Your task to perform on an android device: Open eBay Image 0: 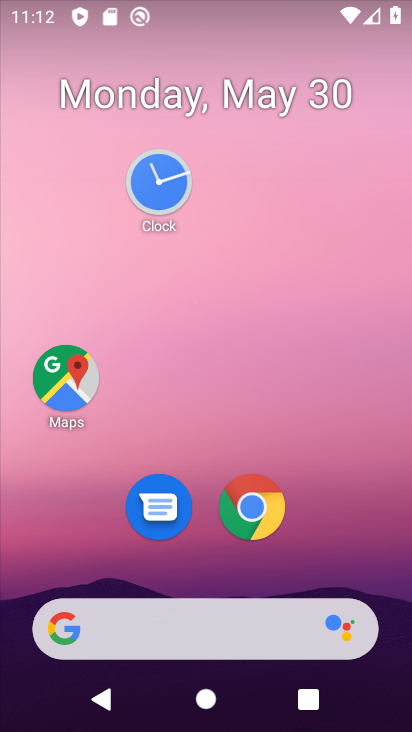
Step 0: click (260, 517)
Your task to perform on an android device: Open eBay Image 1: 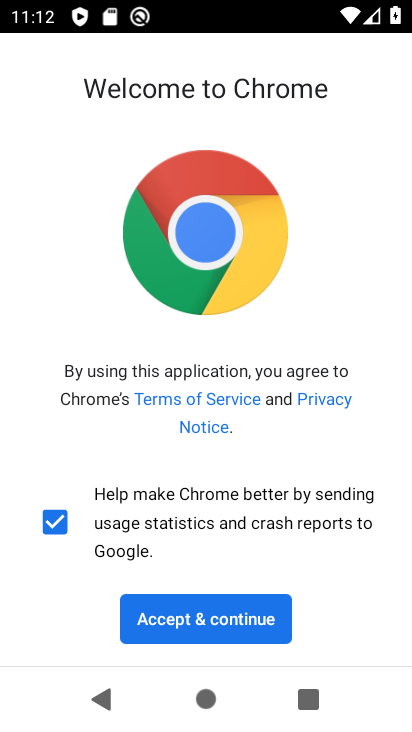
Step 1: click (279, 625)
Your task to perform on an android device: Open eBay Image 2: 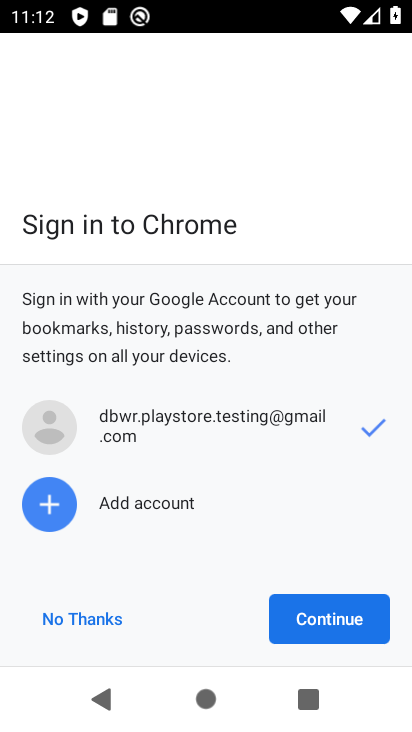
Step 2: click (301, 627)
Your task to perform on an android device: Open eBay Image 3: 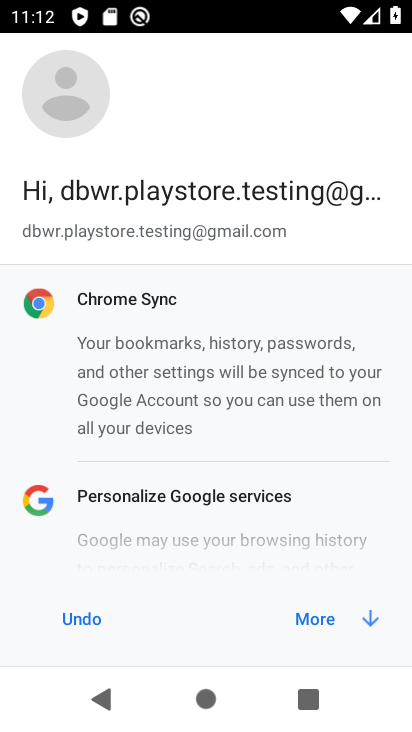
Step 3: click (306, 622)
Your task to perform on an android device: Open eBay Image 4: 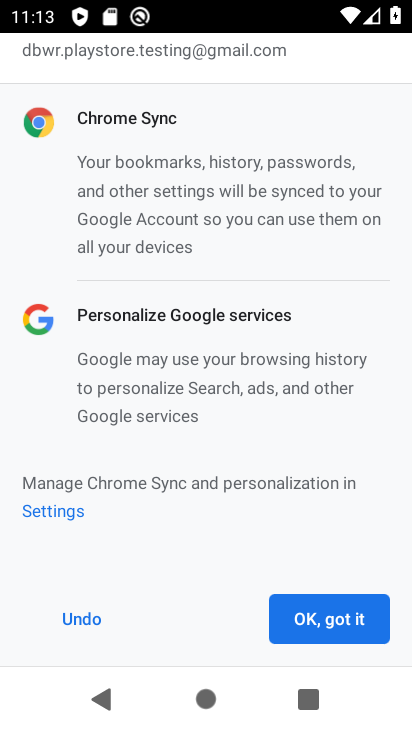
Step 4: click (306, 622)
Your task to perform on an android device: Open eBay Image 5: 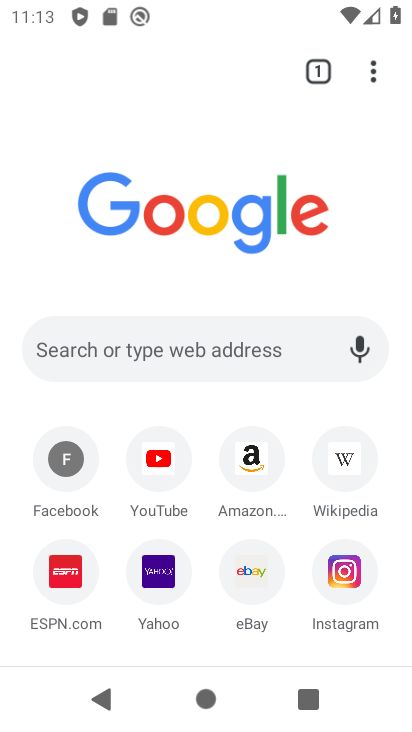
Step 5: click (246, 566)
Your task to perform on an android device: Open eBay Image 6: 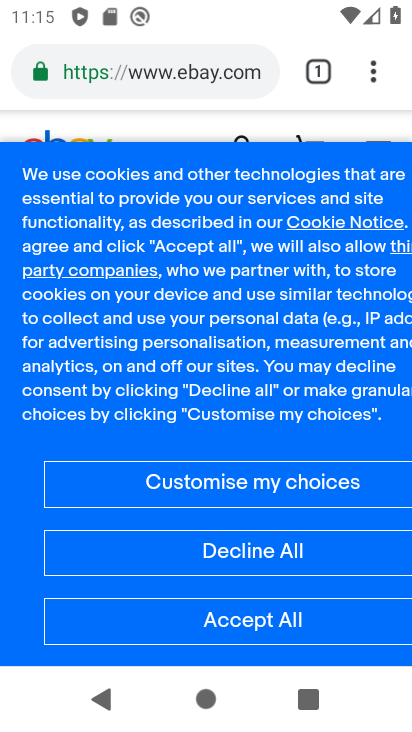
Step 6: task complete